Your task to perform on an android device: turn off data saver in the chrome app Image 0: 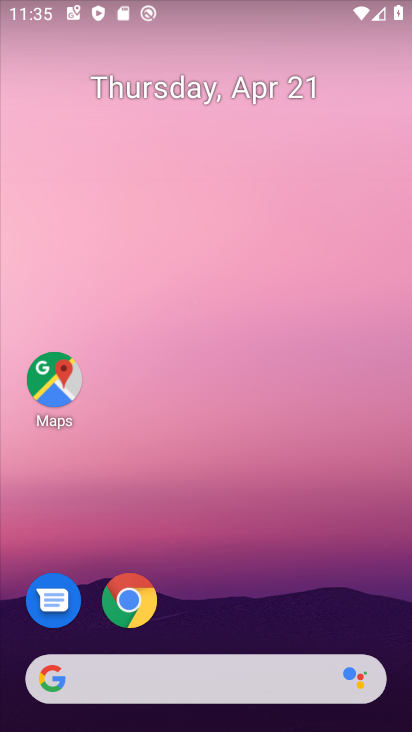
Step 0: click (142, 596)
Your task to perform on an android device: turn off data saver in the chrome app Image 1: 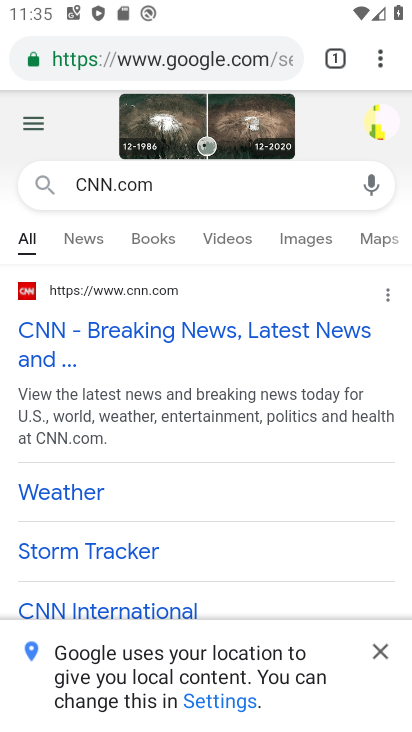
Step 1: click (376, 645)
Your task to perform on an android device: turn off data saver in the chrome app Image 2: 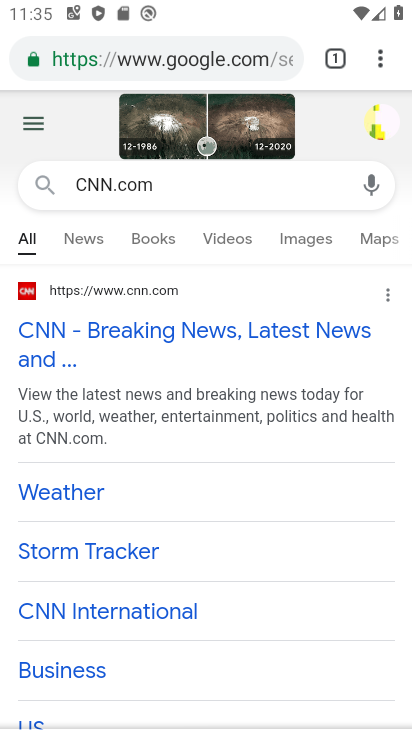
Step 2: click (382, 67)
Your task to perform on an android device: turn off data saver in the chrome app Image 3: 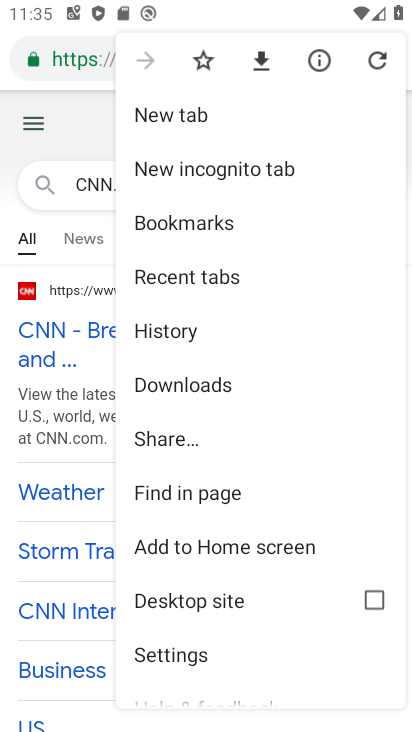
Step 3: click (165, 654)
Your task to perform on an android device: turn off data saver in the chrome app Image 4: 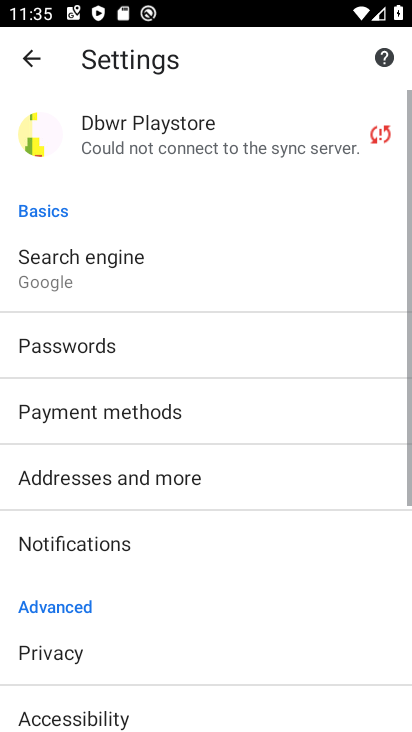
Step 4: drag from (104, 602) to (203, 178)
Your task to perform on an android device: turn off data saver in the chrome app Image 5: 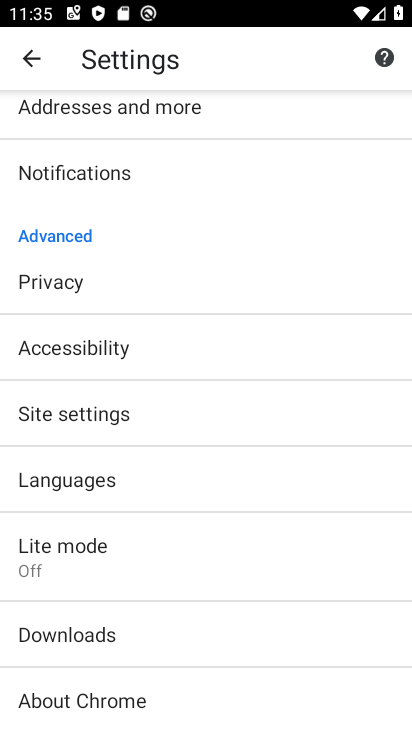
Step 5: click (71, 560)
Your task to perform on an android device: turn off data saver in the chrome app Image 6: 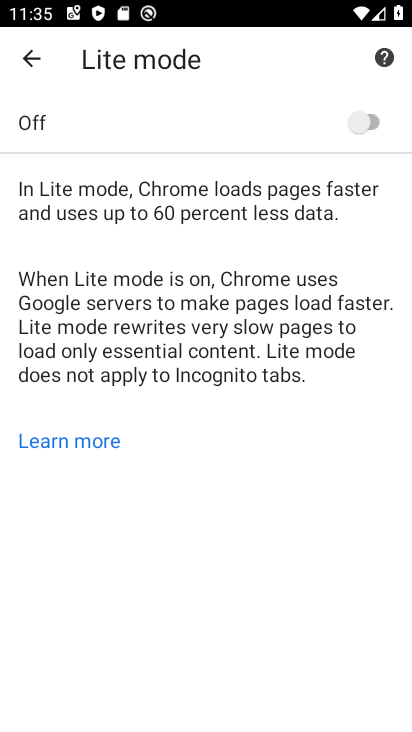
Step 6: task complete